Your task to perform on an android device: toggle location history Image 0: 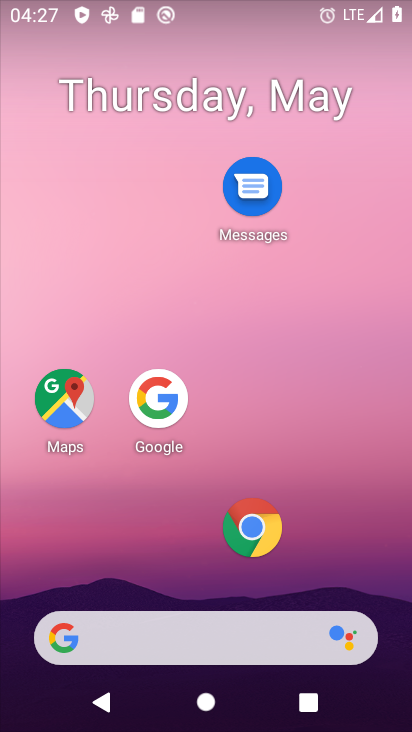
Step 0: drag from (207, 523) to (254, 46)
Your task to perform on an android device: toggle location history Image 1: 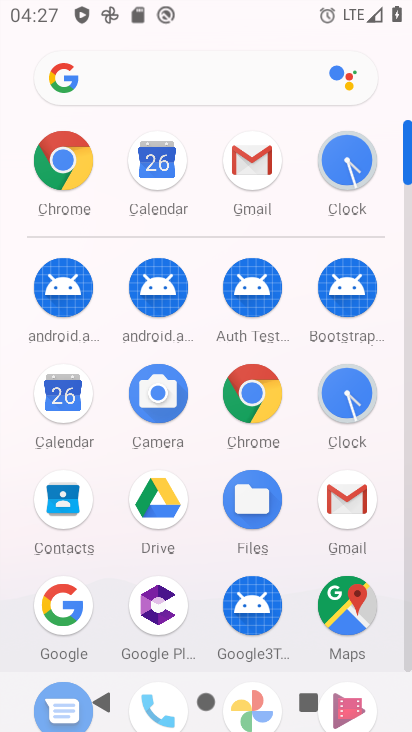
Step 1: drag from (204, 575) to (228, 183)
Your task to perform on an android device: toggle location history Image 2: 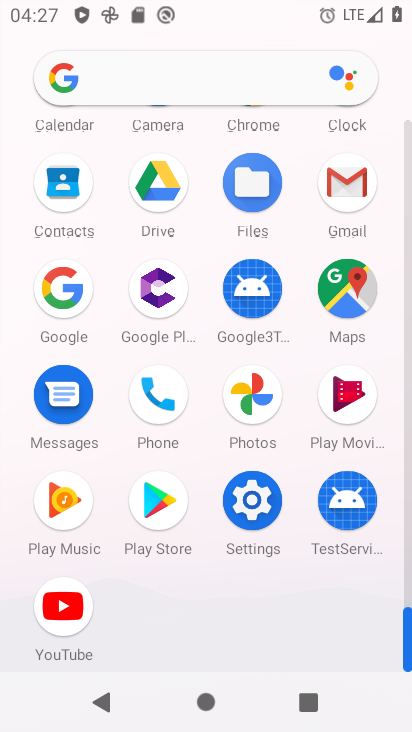
Step 2: click (248, 502)
Your task to perform on an android device: toggle location history Image 3: 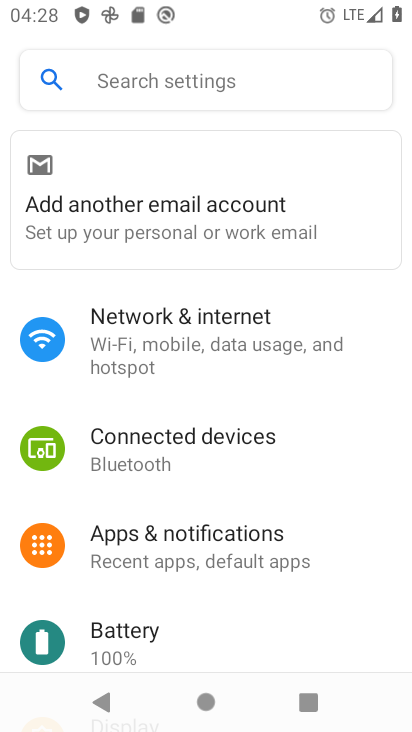
Step 3: drag from (187, 627) to (235, 258)
Your task to perform on an android device: toggle location history Image 4: 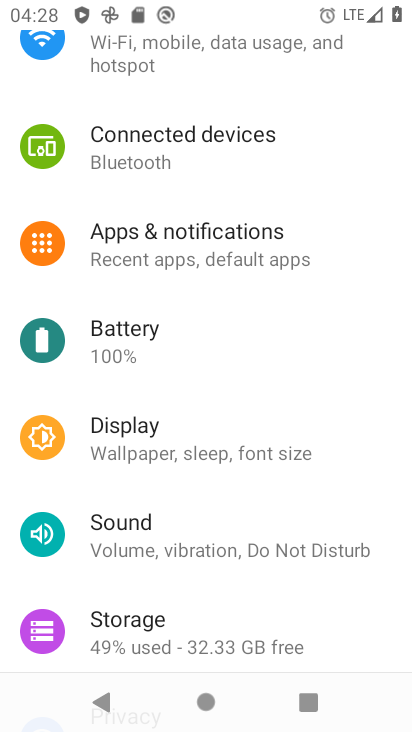
Step 4: drag from (194, 640) to (296, 90)
Your task to perform on an android device: toggle location history Image 5: 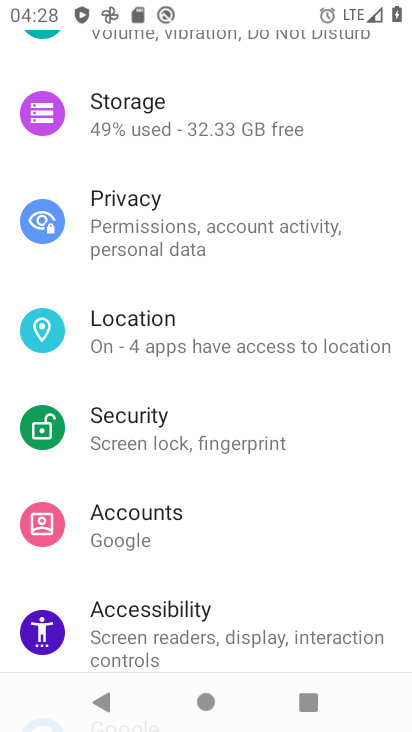
Step 5: click (190, 326)
Your task to perform on an android device: toggle location history Image 6: 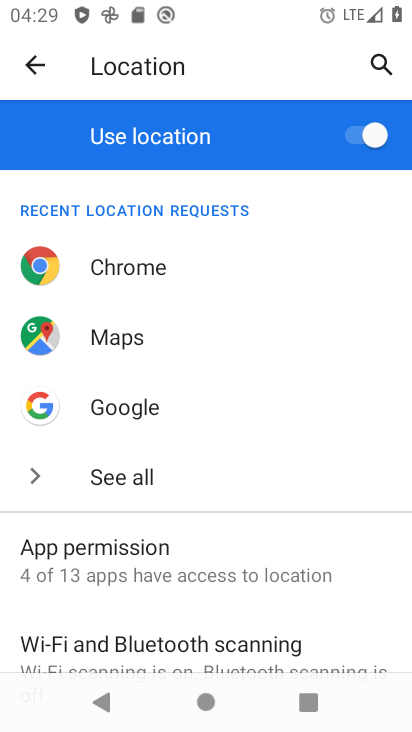
Step 6: drag from (253, 501) to (311, 241)
Your task to perform on an android device: toggle location history Image 7: 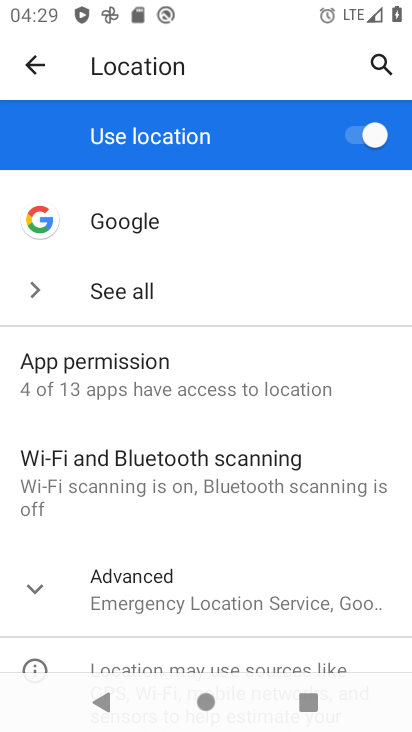
Step 7: click (130, 573)
Your task to perform on an android device: toggle location history Image 8: 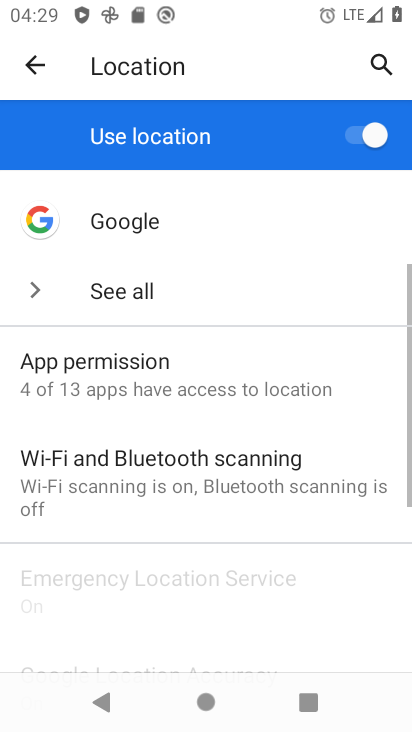
Step 8: drag from (155, 564) to (283, 14)
Your task to perform on an android device: toggle location history Image 9: 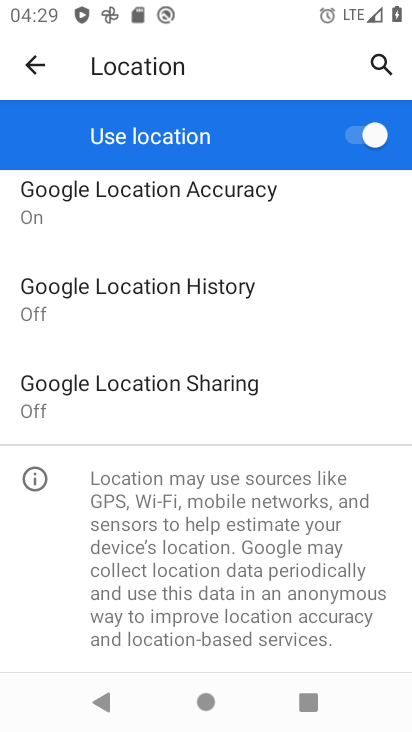
Step 9: click (223, 296)
Your task to perform on an android device: toggle location history Image 10: 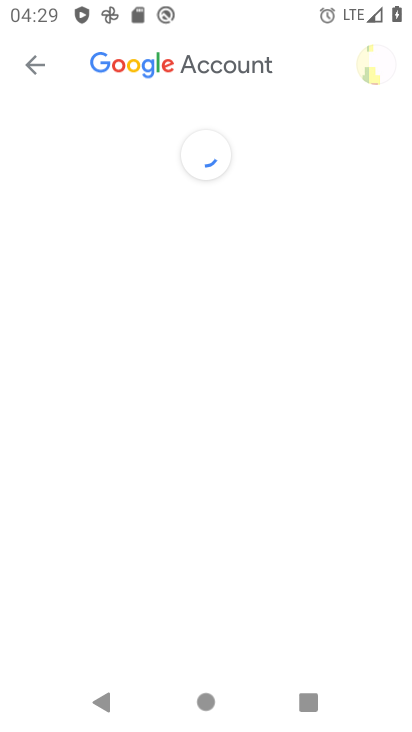
Step 10: drag from (209, 617) to (273, 73)
Your task to perform on an android device: toggle location history Image 11: 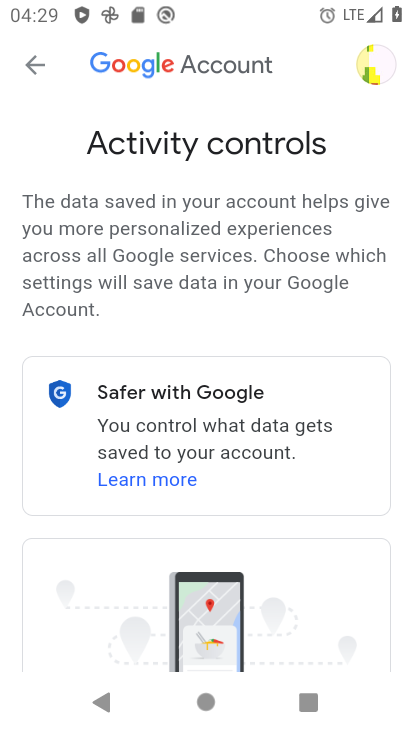
Step 11: drag from (221, 549) to (324, 67)
Your task to perform on an android device: toggle location history Image 12: 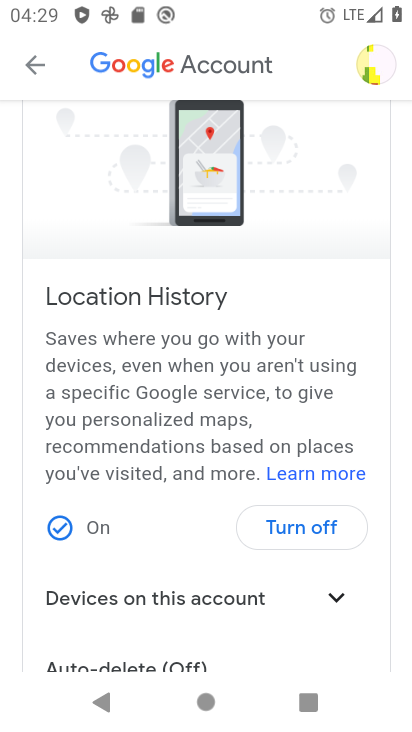
Step 12: click (306, 513)
Your task to perform on an android device: toggle location history Image 13: 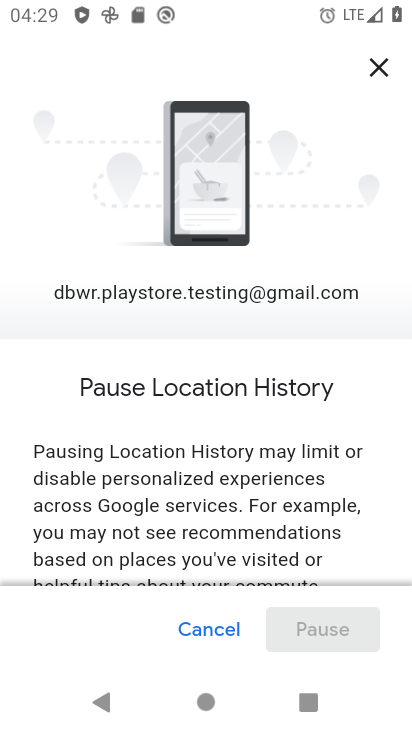
Step 13: drag from (239, 560) to (348, 29)
Your task to perform on an android device: toggle location history Image 14: 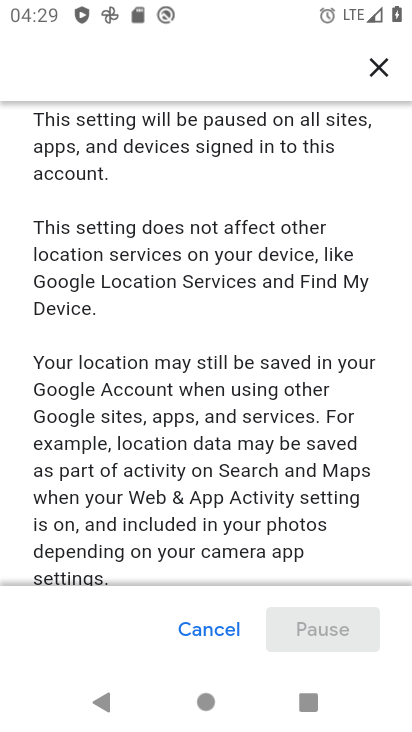
Step 14: drag from (250, 500) to (316, 21)
Your task to perform on an android device: toggle location history Image 15: 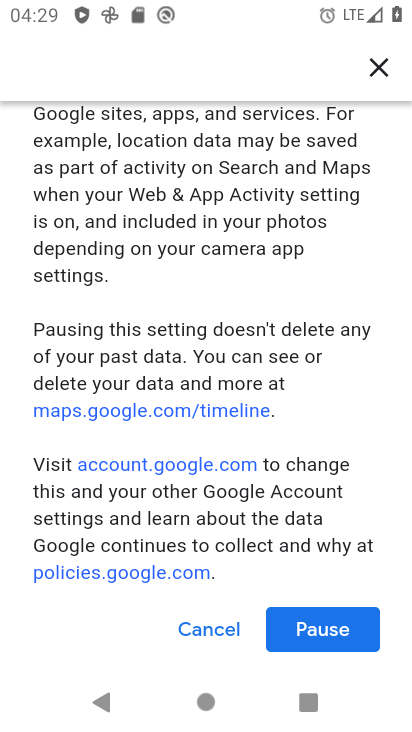
Step 15: click (325, 619)
Your task to perform on an android device: toggle location history Image 16: 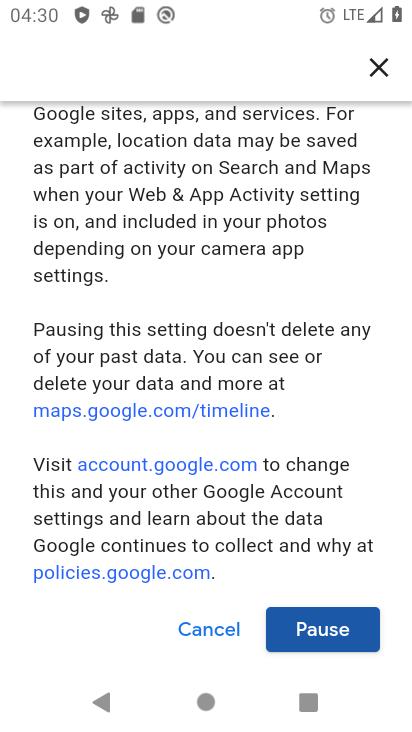
Step 16: drag from (219, 533) to (274, 128)
Your task to perform on an android device: toggle location history Image 17: 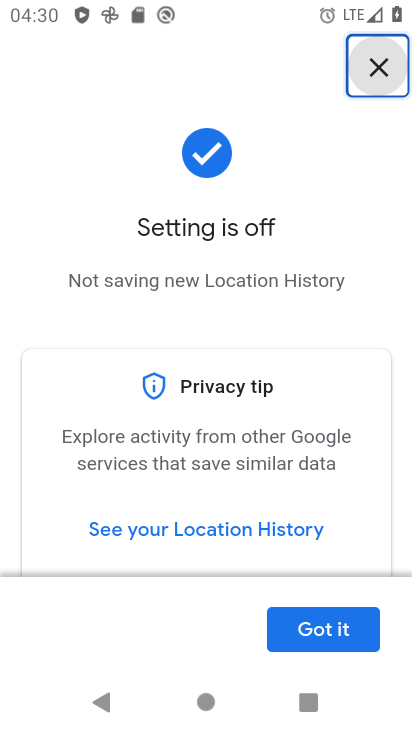
Step 17: click (341, 625)
Your task to perform on an android device: toggle location history Image 18: 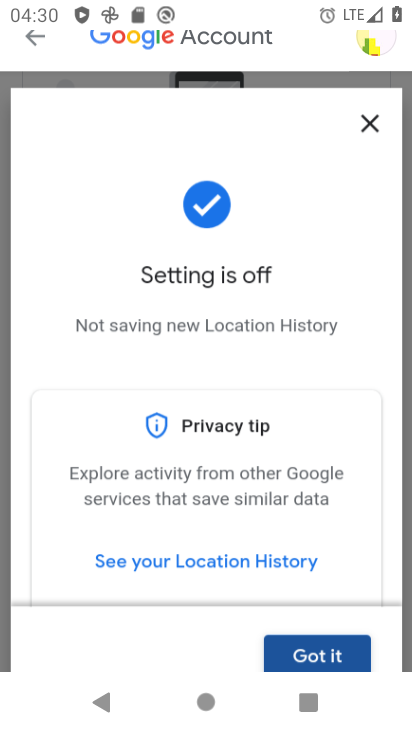
Step 18: task complete